Your task to perform on an android device: Is it going to rain tomorrow? Image 0: 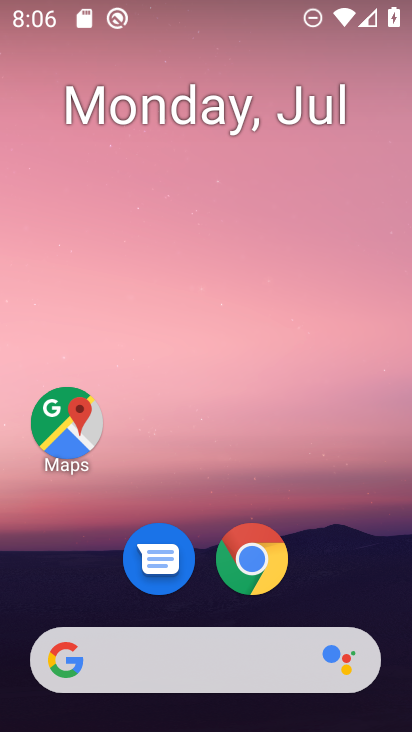
Step 0: drag from (137, 518) to (230, 67)
Your task to perform on an android device: Is it going to rain tomorrow? Image 1: 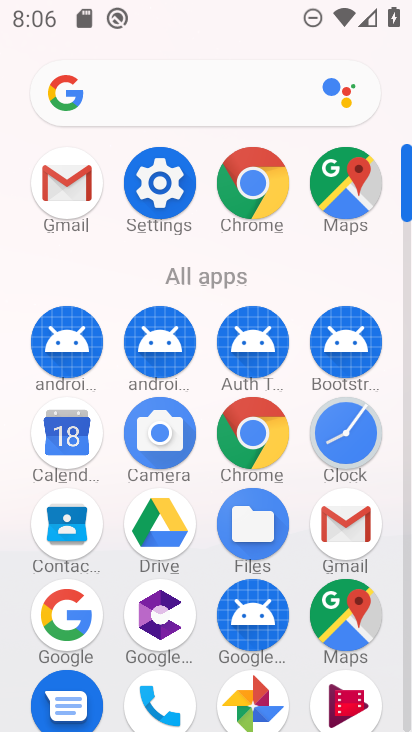
Step 1: click (165, 80)
Your task to perform on an android device: Is it going to rain tomorrow? Image 2: 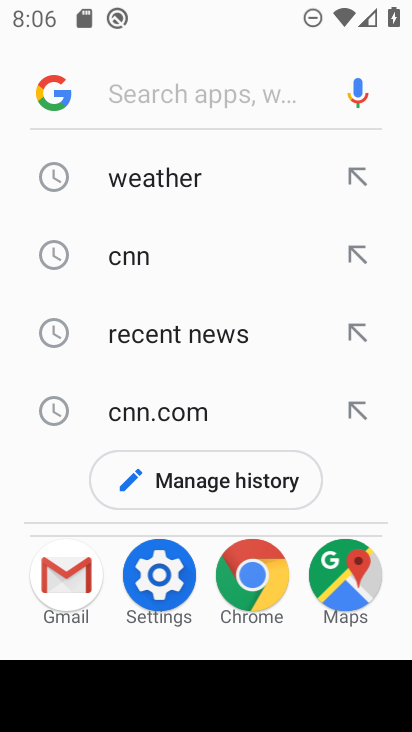
Step 2: click (163, 171)
Your task to perform on an android device: Is it going to rain tomorrow? Image 3: 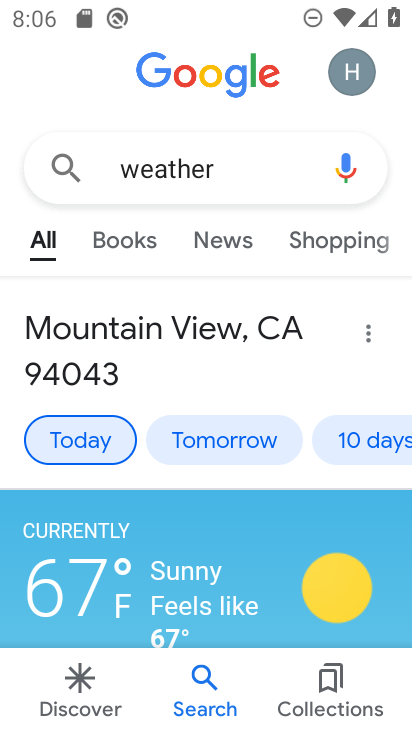
Step 3: click (207, 440)
Your task to perform on an android device: Is it going to rain tomorrow? Image 4: 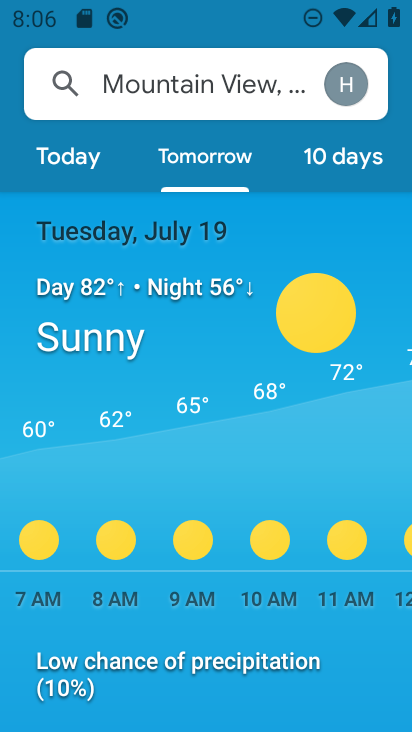
Step 4: task complete